Your task to perform on an android device: uninstall "Facebook Messenger" Image 0: 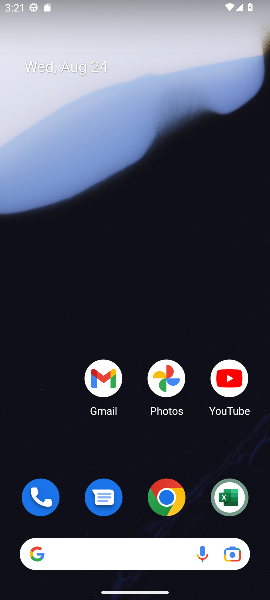
Step 0: drag from (95, 557) to (173, 122)
Your task to perform on an android device: uninstall "Facebook Messenger" Image 1: 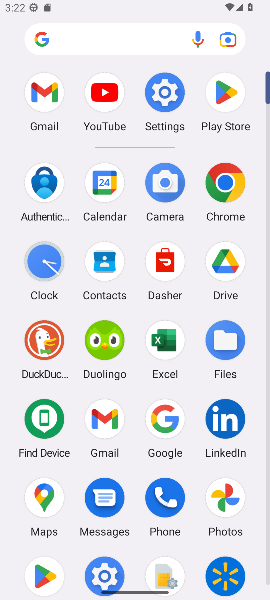
Step 1: click (229, 98)
Your task to perform on an android device: uninstall "Facebook Messenger" Image 2: 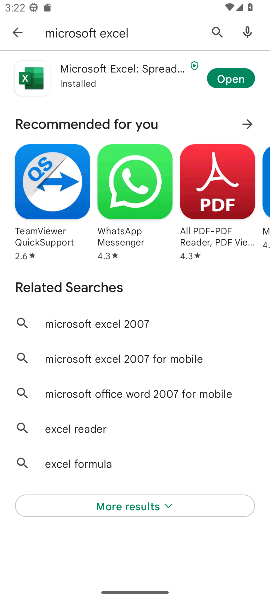
Step 2: press back button
Your task to perform on an android device: uninstall "Facebook Messenger" Image 3: 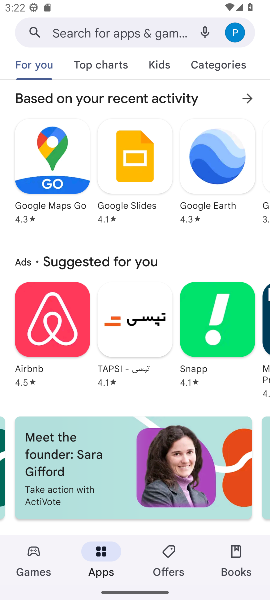
Step 3: click (156, 29)
Your task to perform on an android device: uninstall "Facebook Messenger" Image 4: 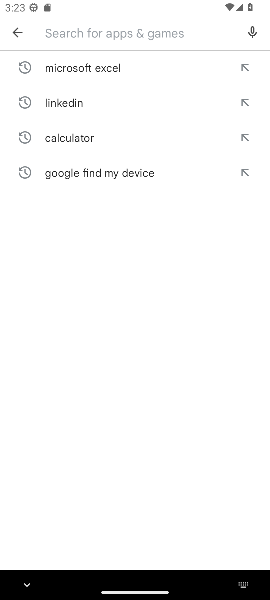
Step 4: type "Facebook Messenger"
Your task to perform on an android device: uninstall "Facebook Messenger" Image 5: 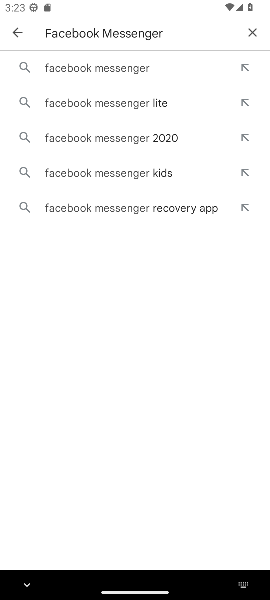
Step 5: click (134, 75)
Your task to perform on an android device: uninstall "Facebook Messenger" Image 6: 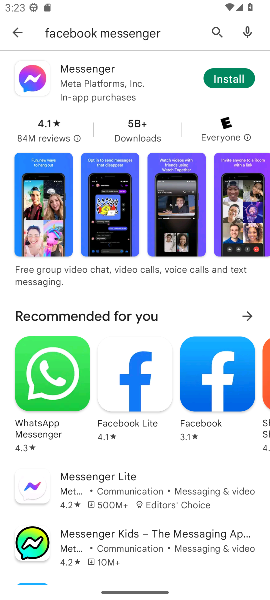
Step 6: task complete